Your task to perform on an android device: choose inbox layout in the gmail app Image 0: 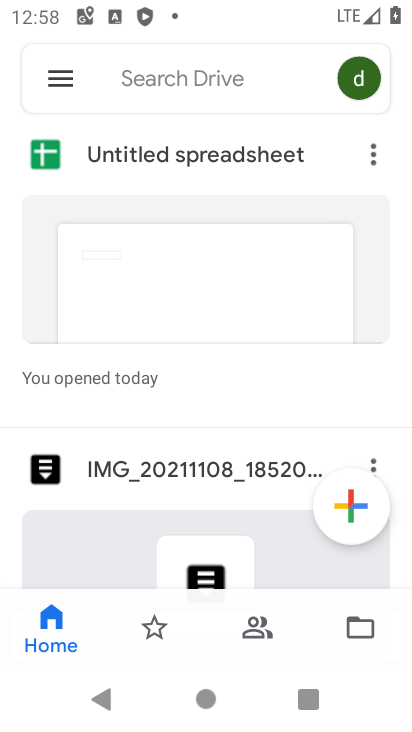
Step 0: press home button
Your task to perform on an android device: choose inbox layout in the gmail app Image 1: 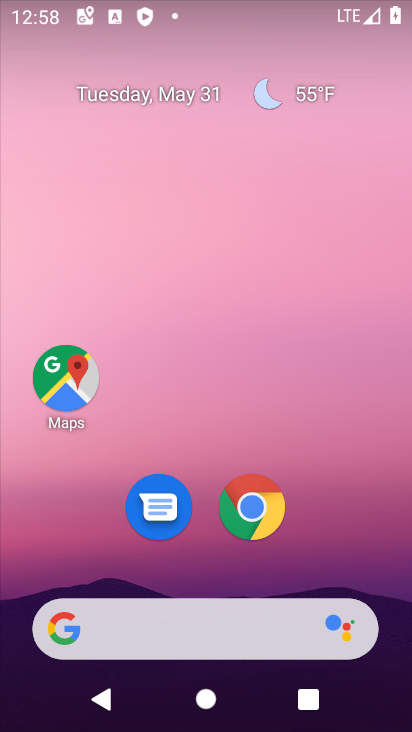
Step 1: drag from (395, 633) to (300, 5)
Your task to perform on an android device: choose inbox layout in the gmail app Image 2: 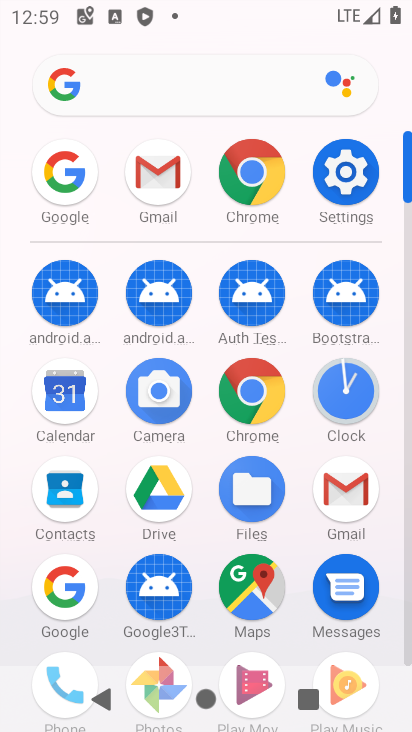
Step 2: click (356, 494)
Your task to perform on an android device: choose inbox layout in the gmail app Image 3: 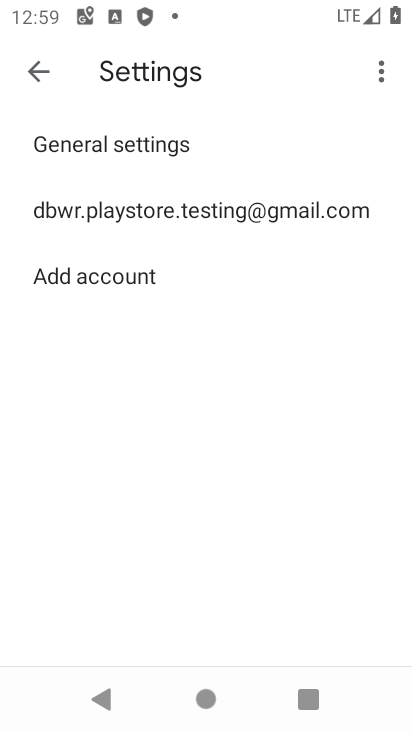
Step 3: task complete